Your task to perform on an android device: Open CNN.com Image 0: 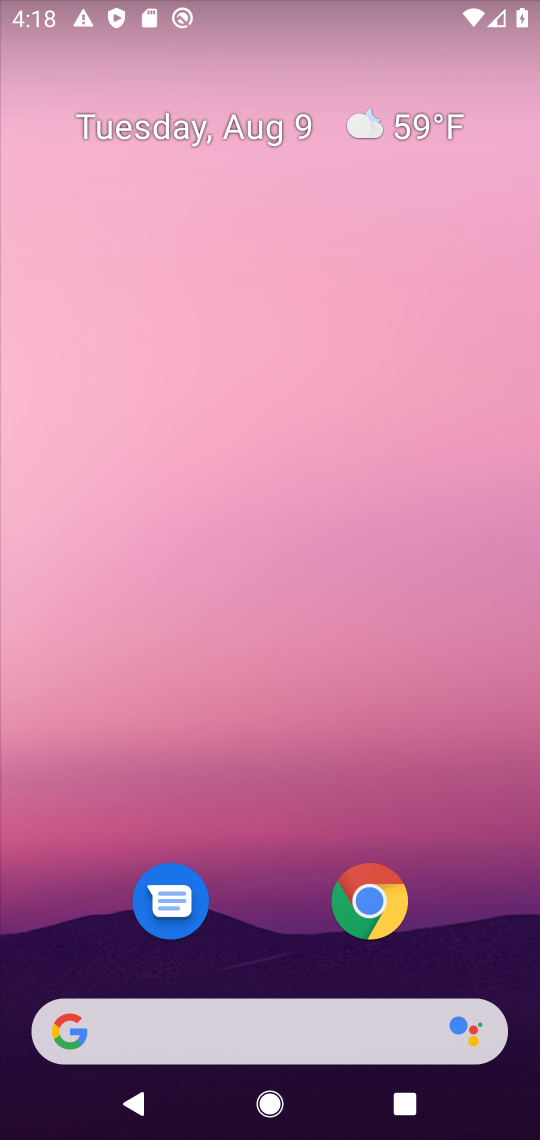
Step 0: press home button
Your task to perform on an android device: Open CNN.com Image 1: 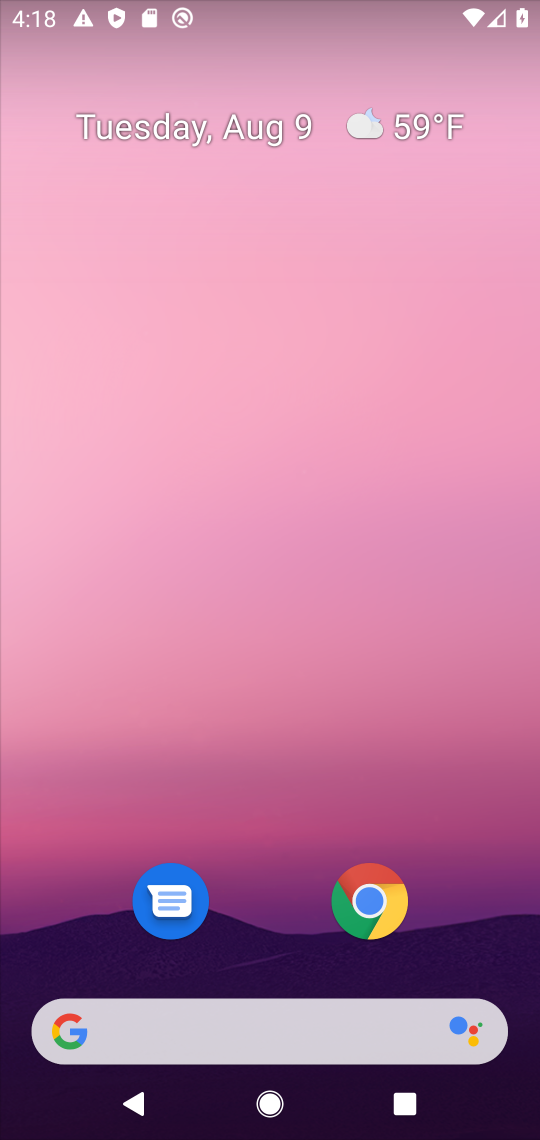
Step 1: click (381, 901)
Your task to perform on an android device: Open CNN.com Image 2: 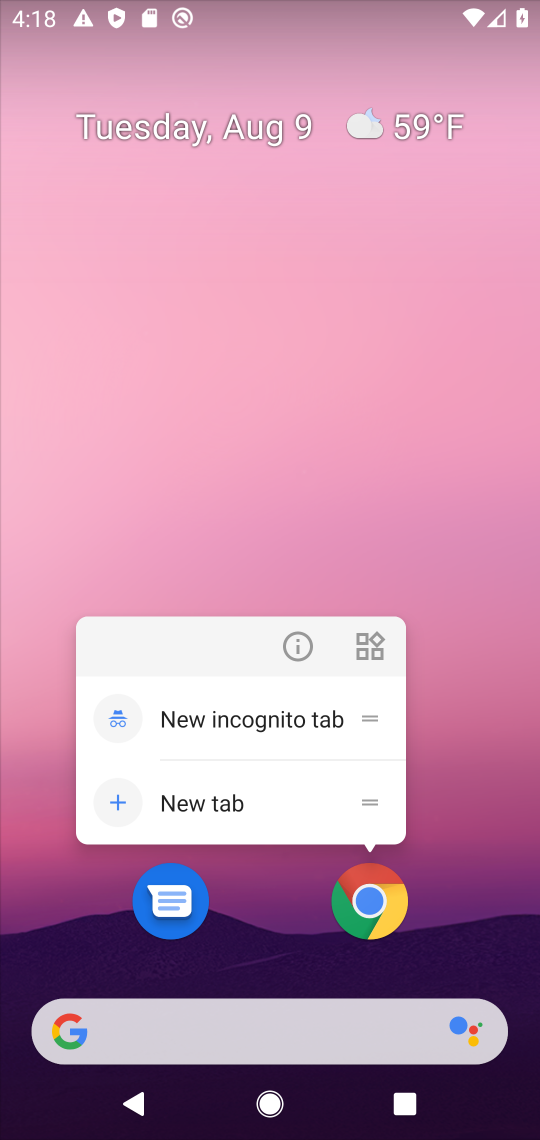
Step 2: click (390, 871)
Your task to perform on an android device: Open CNN.com Image 3: 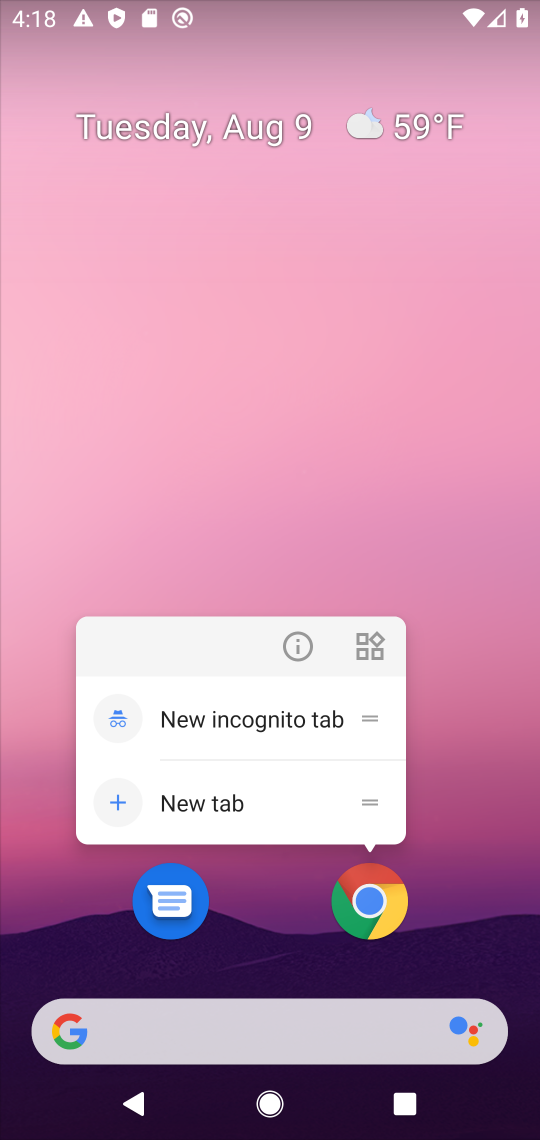
Step 3: click (390, 871)
Your task to perform on an android device: Open CNN.com Image 4: 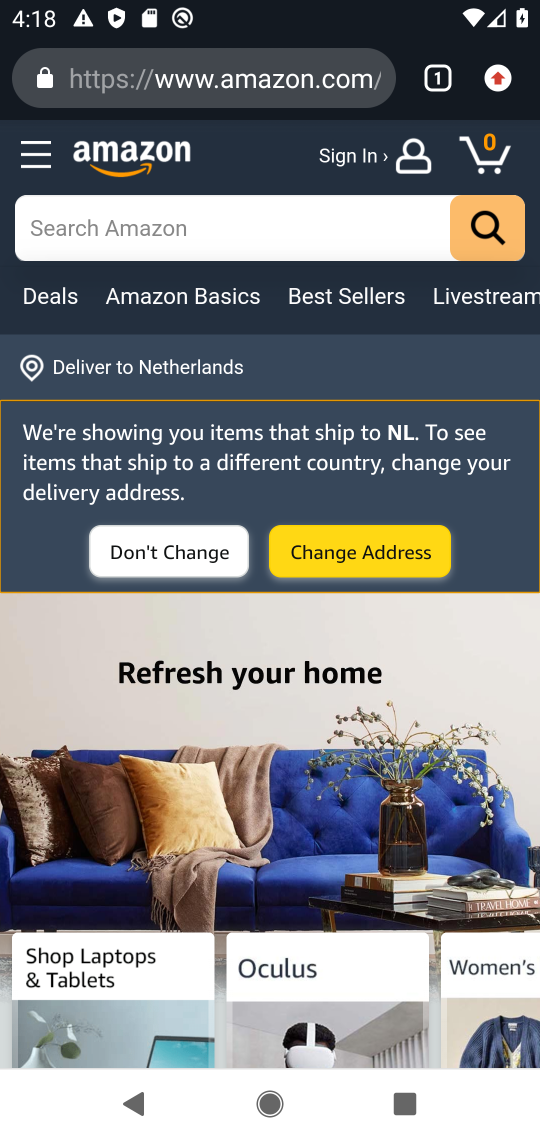
Step 4: click (209, 96)
Your task to perform on an android device: Open CNN.com Image 5: 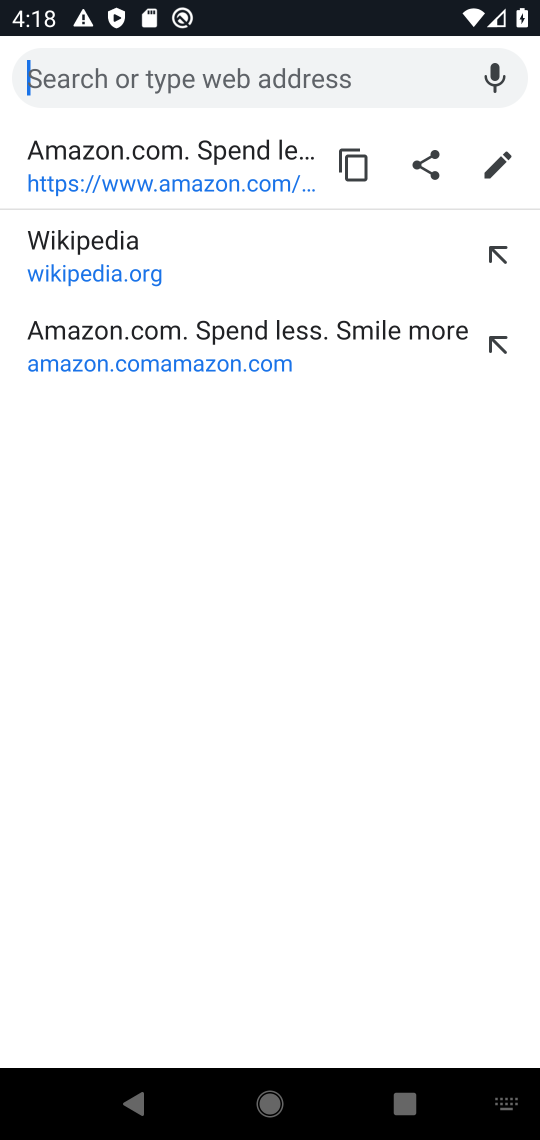
Step 5: type "CNN.com"
Your task to perform on an android device: Open CNN.com Image 6: 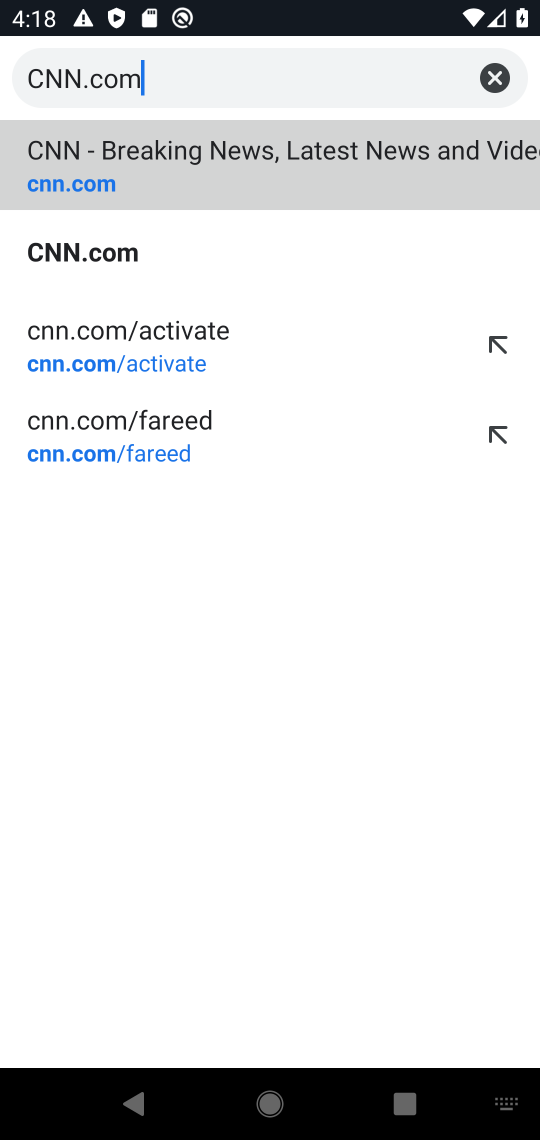
Step 6: type ""
Your task to perform on an android device: Open CNN.com Image 7: 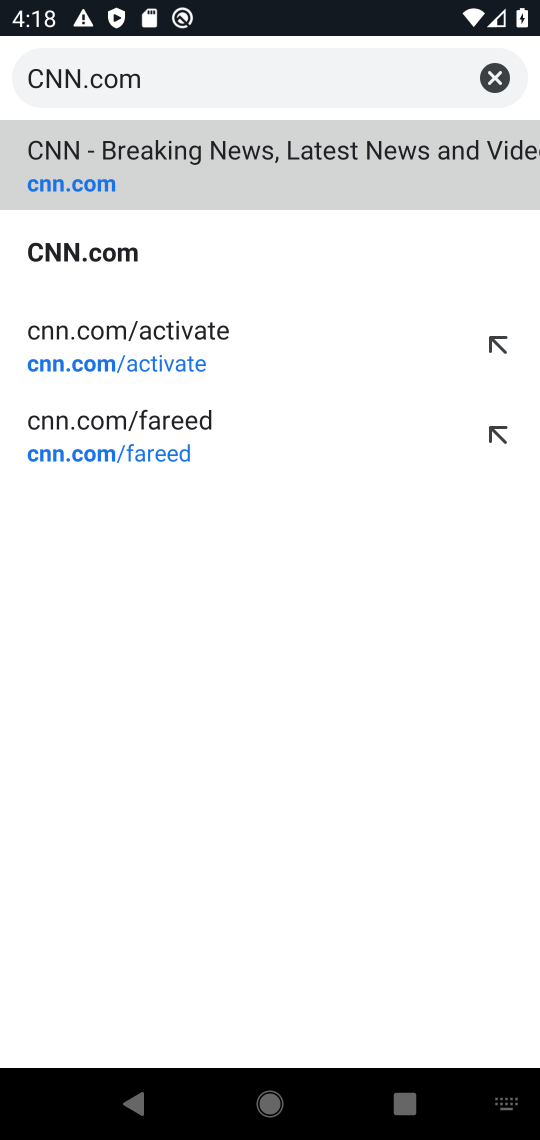
Step 7: click (154, 173)
Your task to perform on an android device: Open CNN.com Image 8: 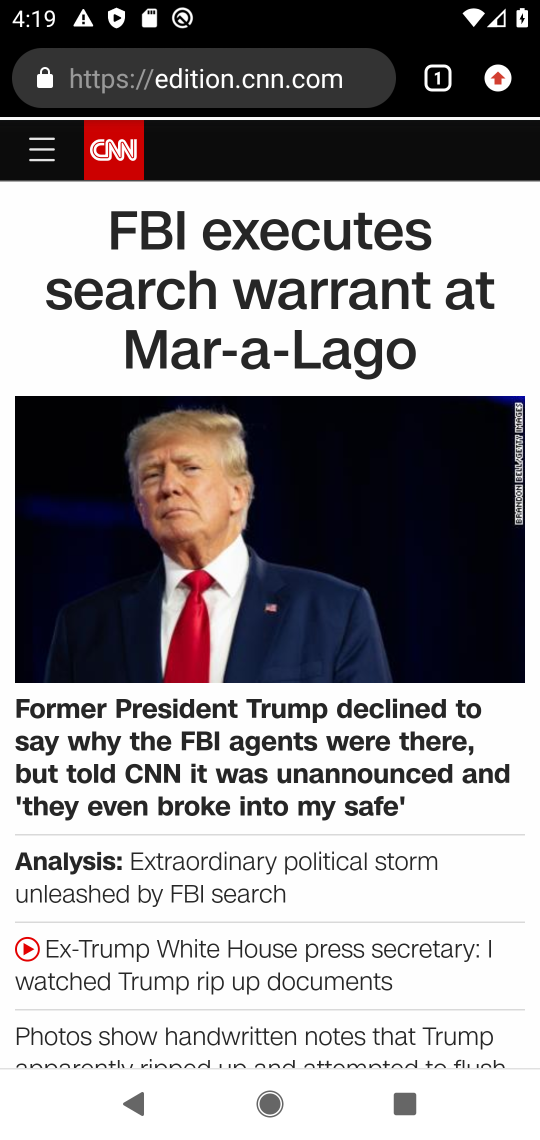
Step 8: task complete